Your task to perform on an android device: Go to Yahoo.com Image 0: 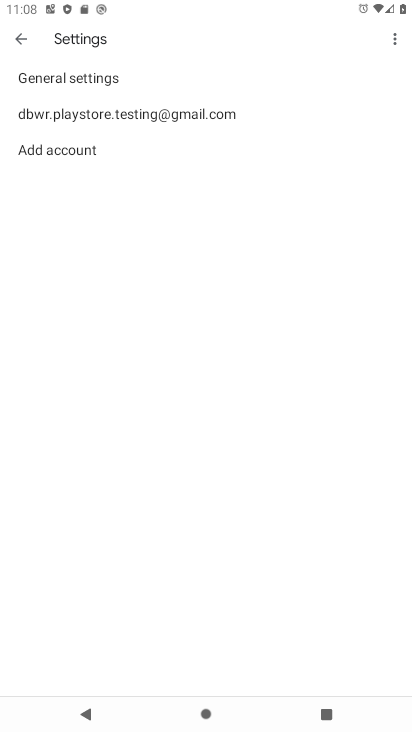
Step 0: press home button
Your task to perform on an android device: Go to Yahoo.com Image 1: 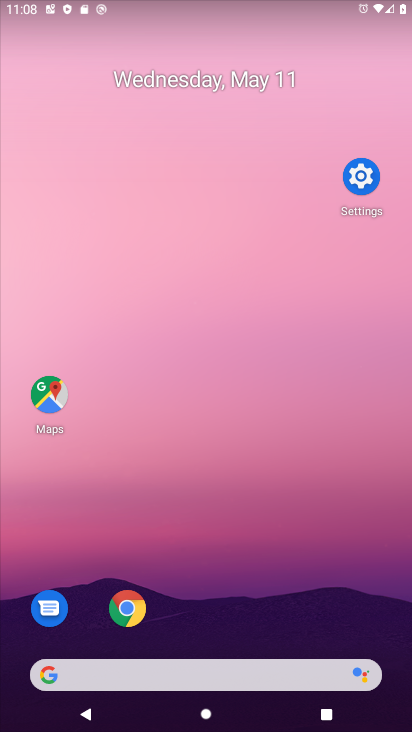
Step 1: drag from (328, 564) to (222, 187)
Your task to perform on an android device: Go to Yahoo.com Image 2: 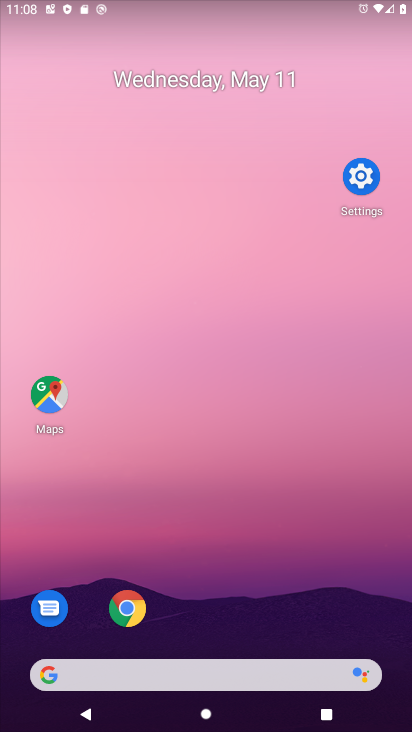
Step 2: drag from (202, 557) to (65, 87)
Your task to perform on an android device: Go to Yahoo.com Image 3: 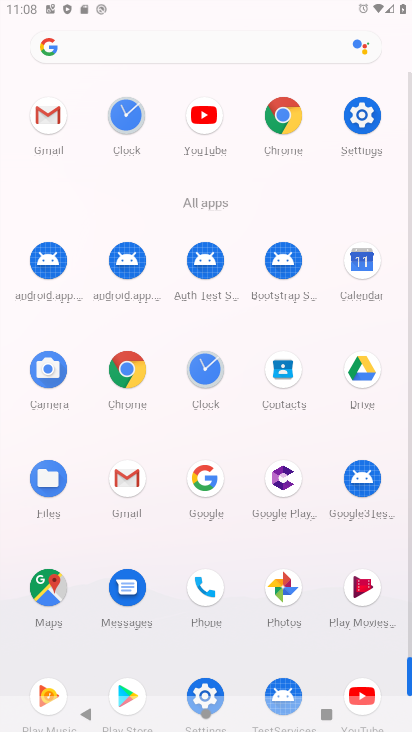
Step 3: drag from (278, 404) to (169, 11)
Your task to perform on an android device: Go to Yahoo.com Image 4: 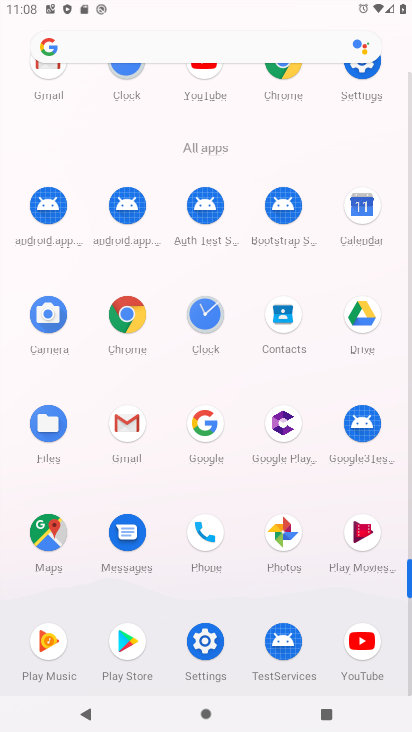
Step 4: click (133, 313)
Your task to perform on an android device: Go to Yahoo.com Image 5: 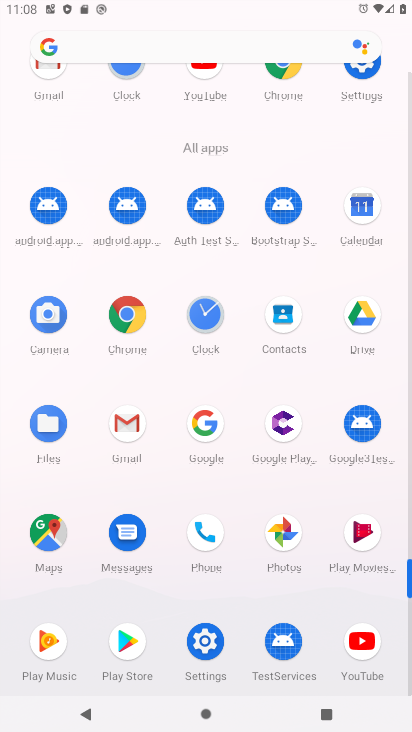
Step 5: click (132, 315)
Your task to perform on an android device: Go to Yahoo.com Image 6: 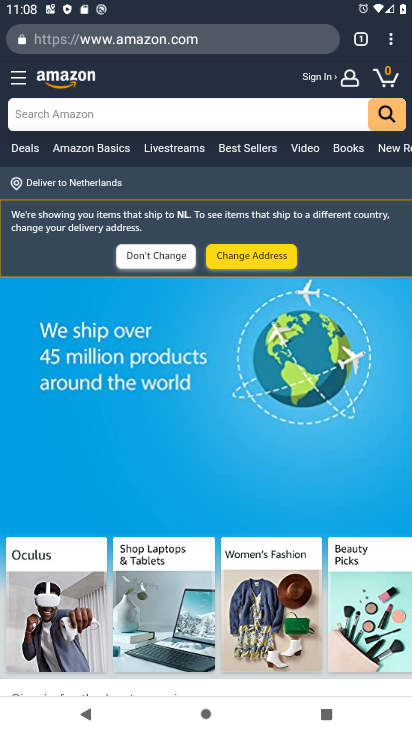
Step 6: drag from (387, 38) to (249, 83)
Your task to perform on an android device: Go to Yahoo.com Image 7: 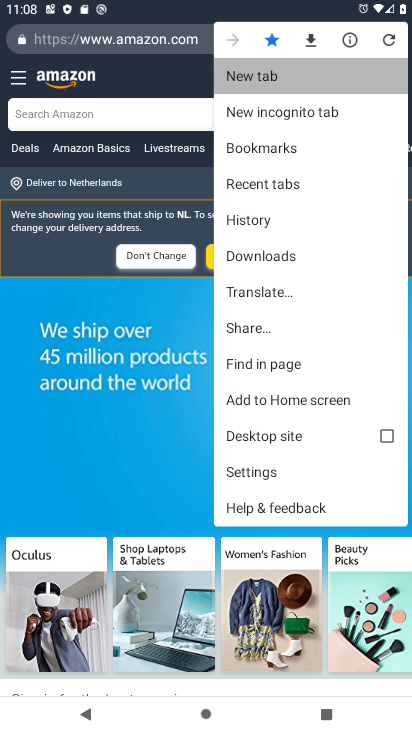
Step 7: click (249, 83)
Your task to perform on an android device: Go to Yahoo.com Image 8: 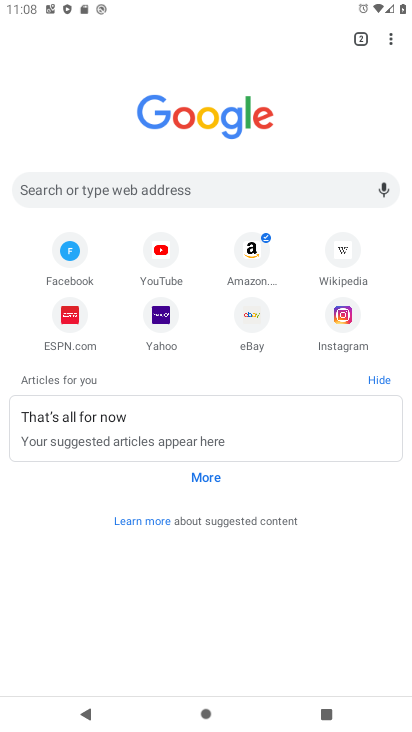
Step 8: click (161, 308)
Your task to perform on an android device: Go to Yahoo.com Image 9: 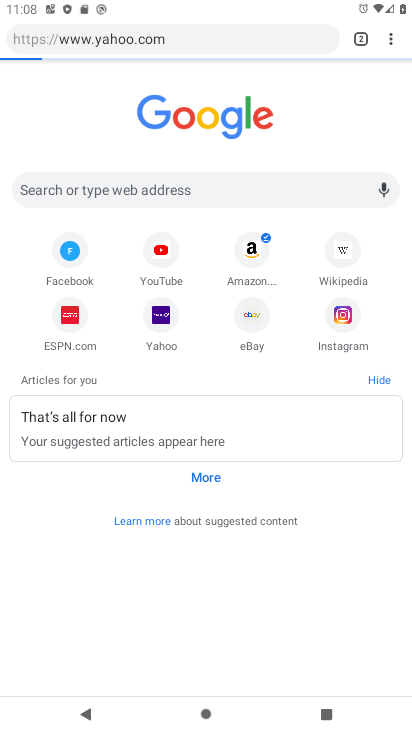
Step 9: click (162, 307)
Your task to perform on an android device: Go to Yahoo.com Image 10: 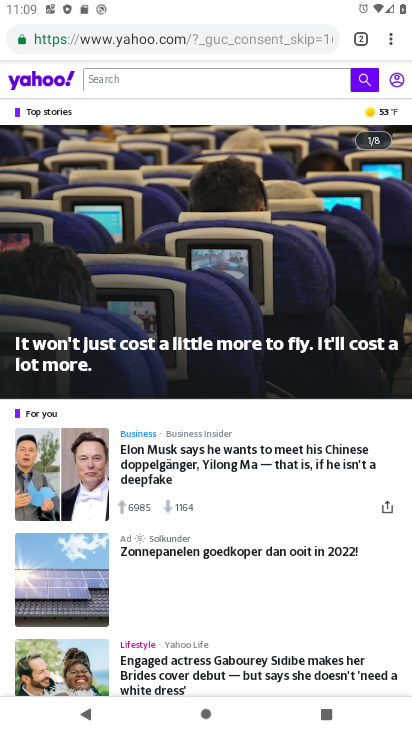
Step 10: task complete